Your task to perform on an android device: Show me popular games on the Play Store Image 0: 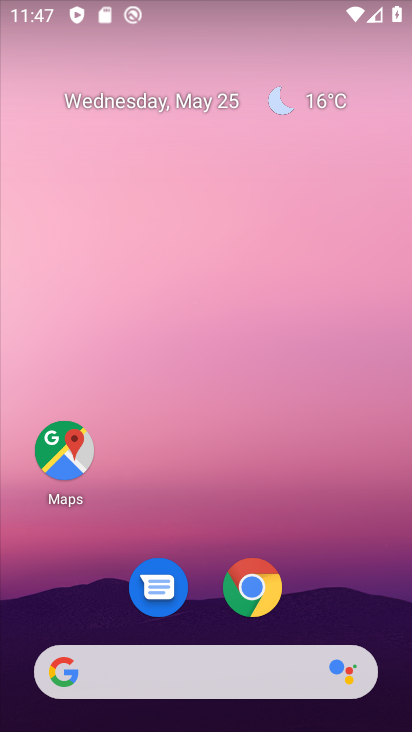
Step 0: drag from (253, 645) to (303, 396)
Your task to perform on an android device: Show me popular games on the Play Store Image 1: 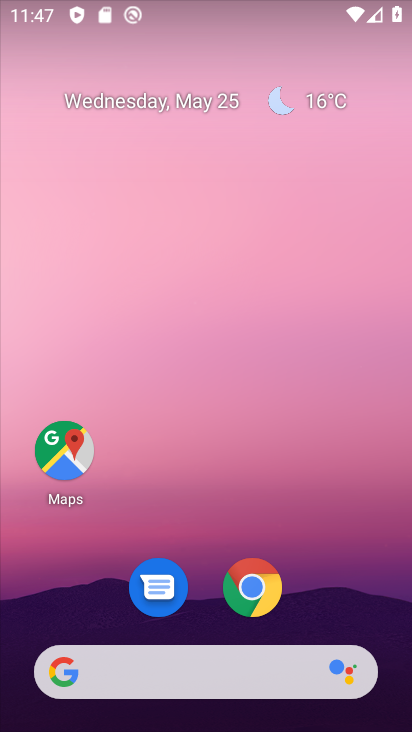
Step 1: drag from (188, 599) to (252, 228)
Your task to perform on an android device: Show me popular games on the Play Store Image 2: 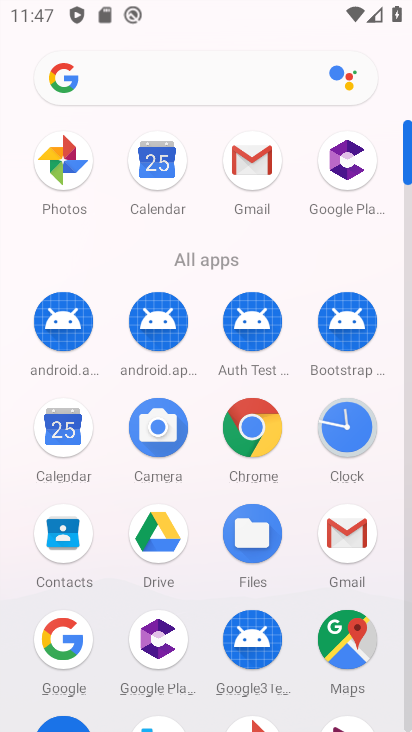
Step 2: drag from (128, 638) to (205, 205)
Your task to perform on an android device: Show me popular games on the Play Store Image 3: 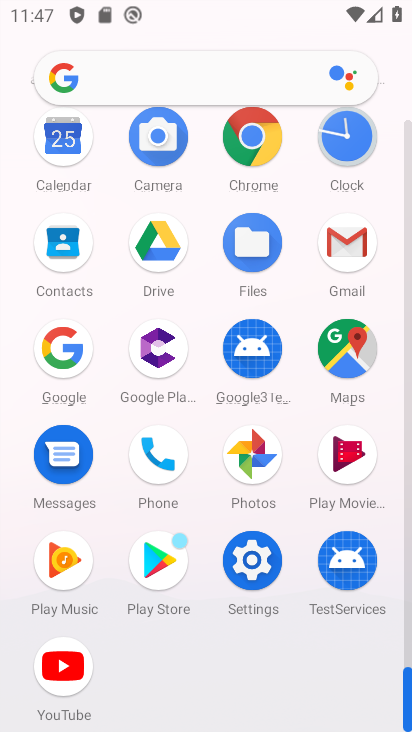
Step 3: click (153, 553)
Your task to perform on an android device: Show me popular games on the Play Store Image 4: 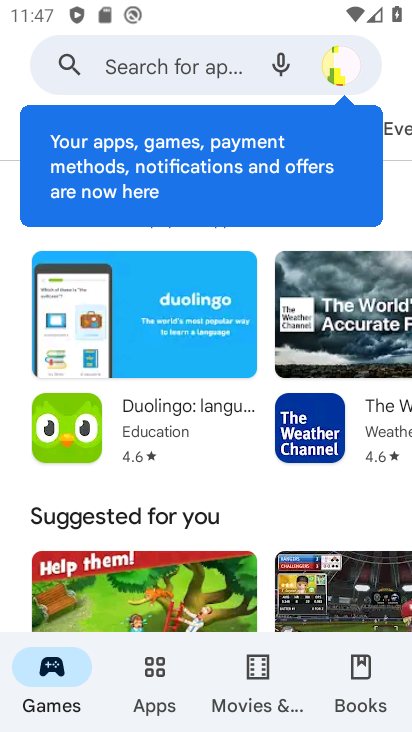
Step 4: drag from (211, 511) to (226, 119)
Your task to perform on an android device: Show me popular games on the Play Store Image 5: 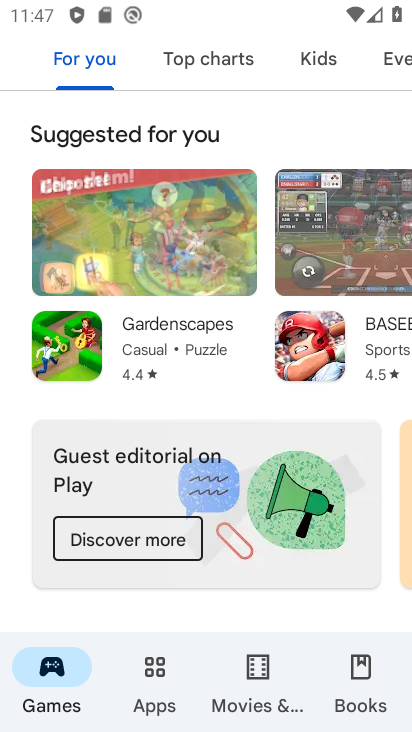
Step 5: drag from (197, 425) to (245, 50)
Your task to perform on an android device: Show me popular games on the Play Store Image 6: 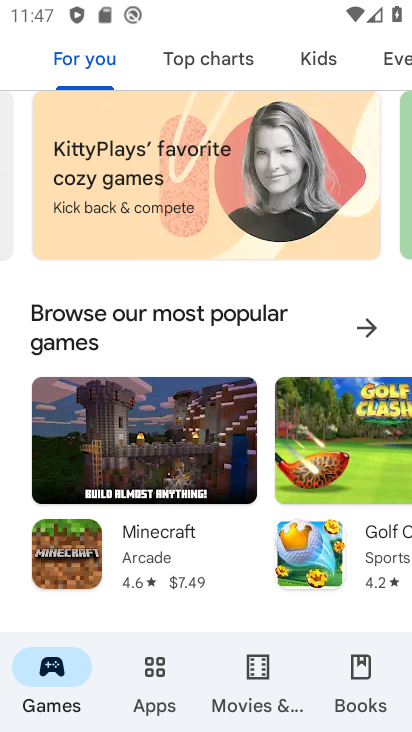
Step 6: click (298, 299)
Your task to perform on an android device: Show me popular games on the Play Store Image 7: 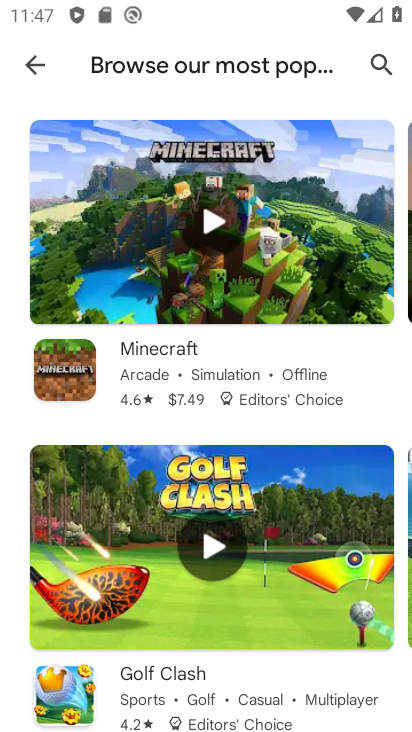
Step 7: task complete